Your task to perform on an android device: turn off picture-in-picture Image 0: 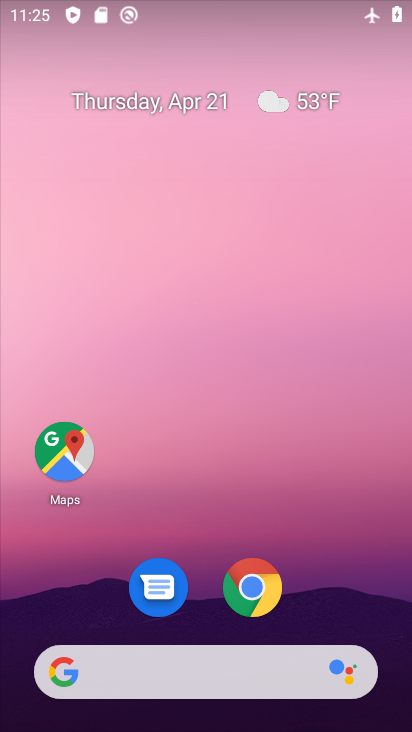
Step 0: drag from (223, 549) to (215, 45)
Your task to perform on an android device: turn off picture-in-picture Image 1: 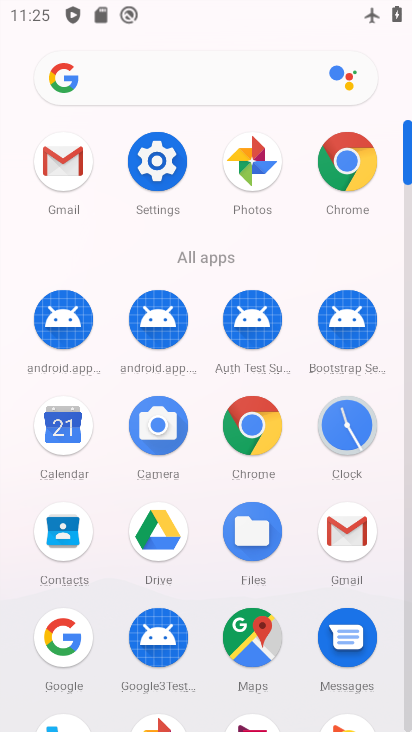
Step 1: click (153, 154)
Your task to perform on an android device: turn off picture-in-picture Image 2: 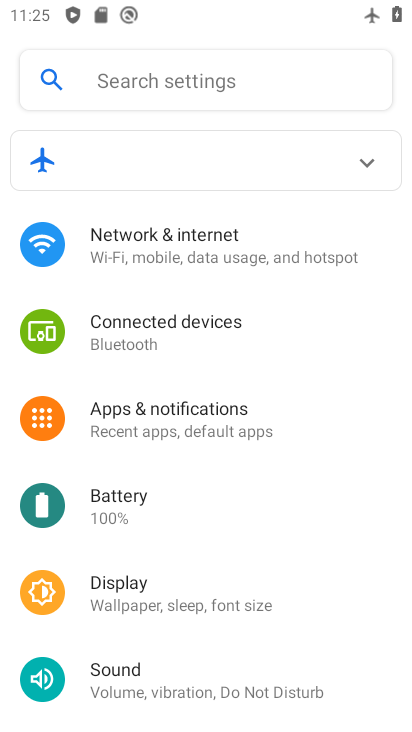
Step 2: click (180, 419)
Your task to perform on an android device: turn off picture-in-picture Image 3: 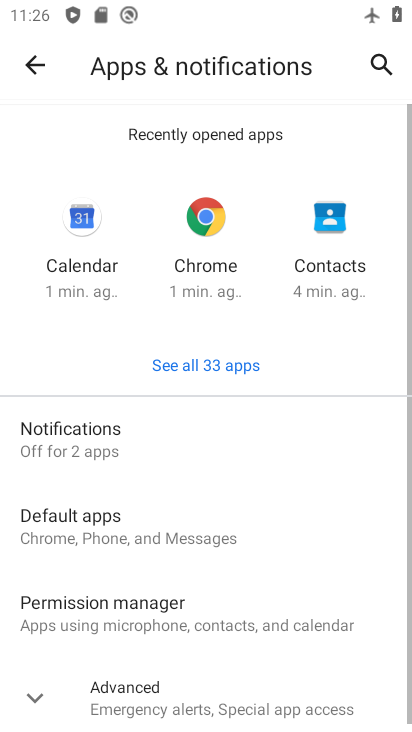
Step 3: drag from (157, 583) to (242, 101)
Your task to perform on an android device: turn off picture-in-picture Image 4: 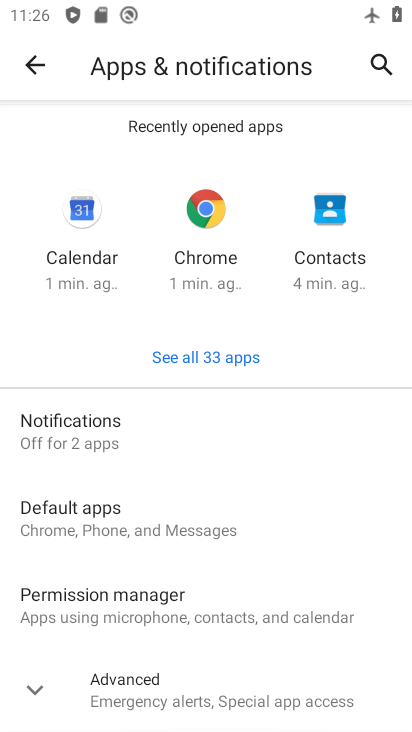
Step 4: click (207, 692)
Your task to perform on an android device: turn off picture-in-picture Image 5: 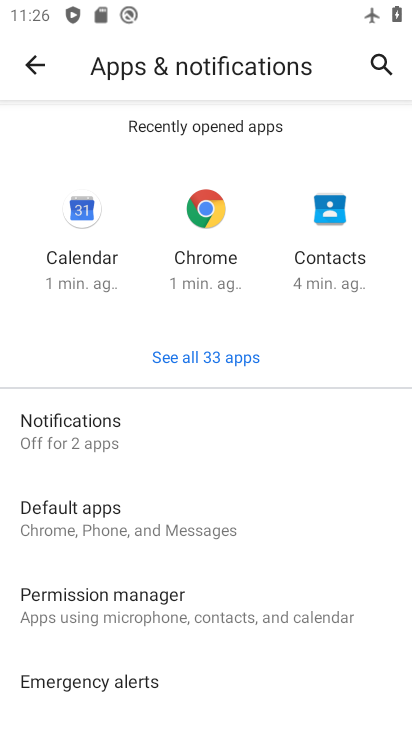
Step 5: drag from (147, 674) to (242, 199)
Your task to perform on an android device: turn off picture-in-picture Image 6: 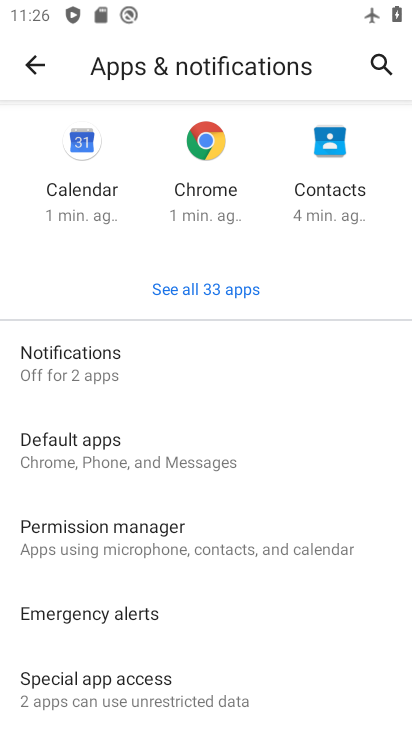
Step 6: drag from (142, 687) to (269, 163)
Your task to perform on an android device: turn off picture-in-picture Image 7: 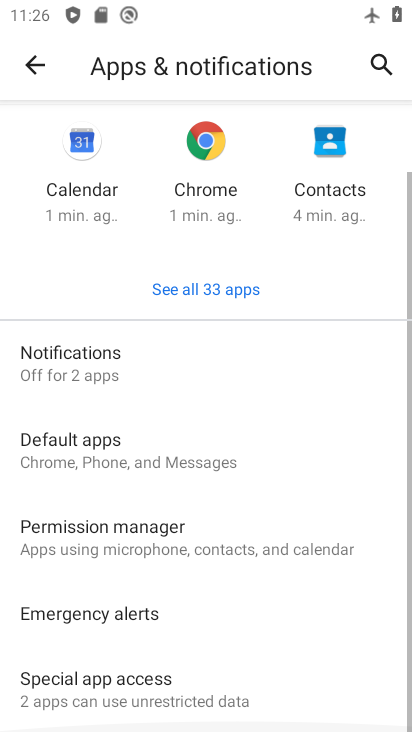
Step 7: click (122, 680)
Your task to perform on an android device: turn off picture-in-picture Image 8: 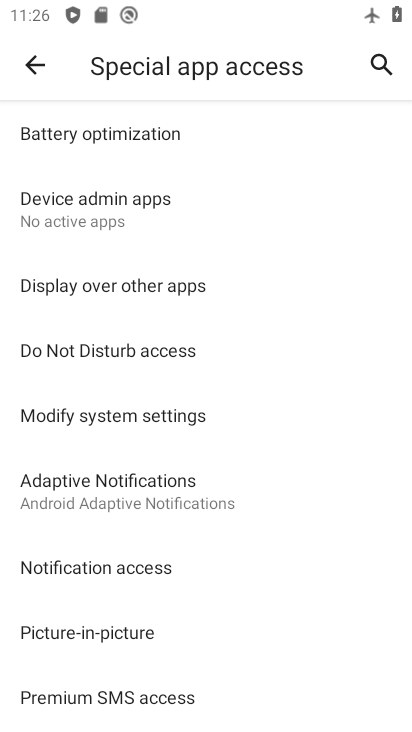
Step 8: click (110, 637)
Your task to perform on an android device: turn off picture-in-picture Image 9: 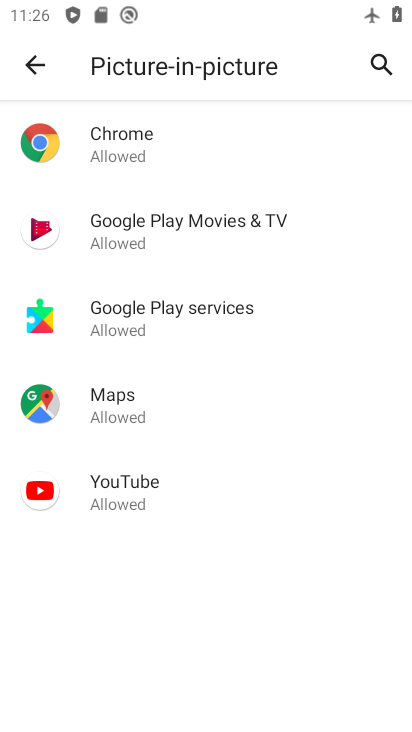
Step 9: click (140, 157)
Your task to perform on an android device: turn off picture-in-picture Image 10: 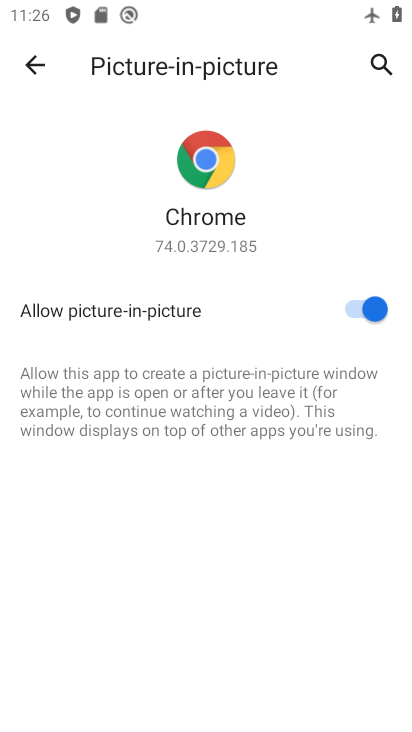
Step 10: click (377, 307)
Your task to perform on an android device: turn off picture-in-picture Image 11: 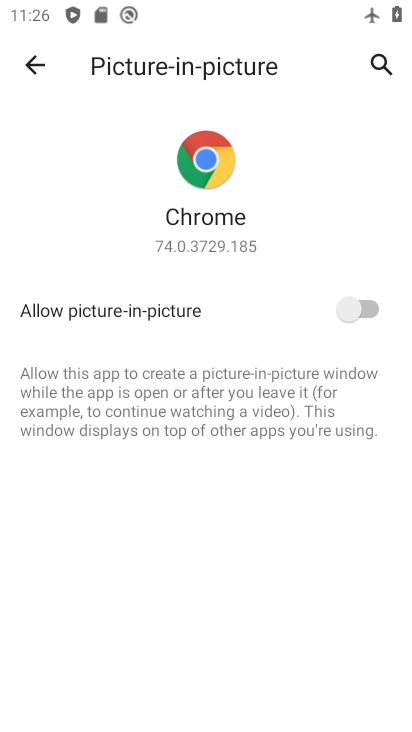
Step 11: task complete